Your task to perform on an android device: Check the news Image 0: 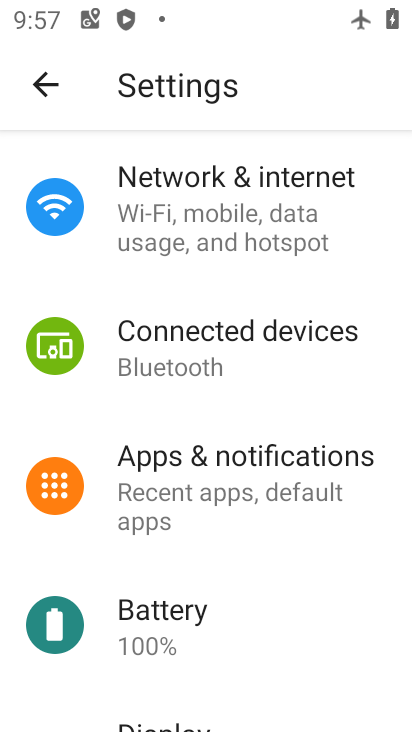
Step 0: press home button
Your task to perform on an android device: Check the news Image 1: 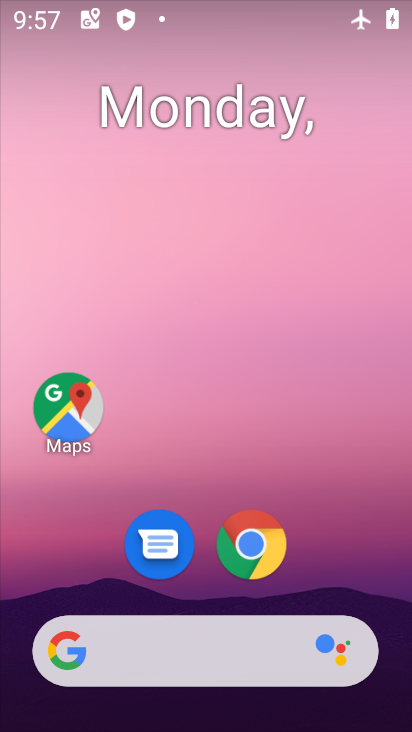
Step 1: task complete